Your task to perform on an android device: toggle wifi Image 0: 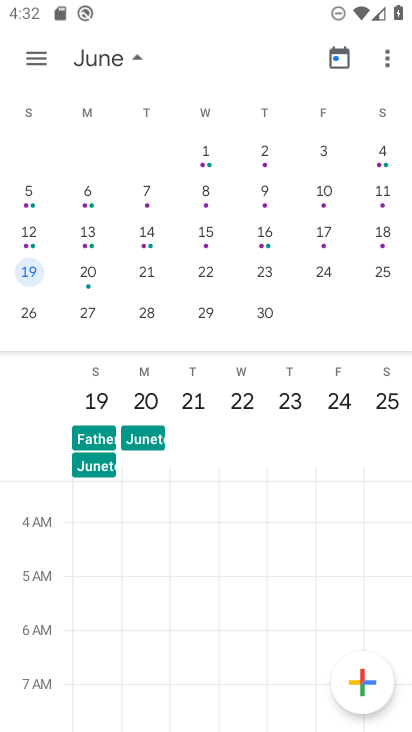
Step 0: press home button
Your task to perform on an android device: toggle wifi Image 1: 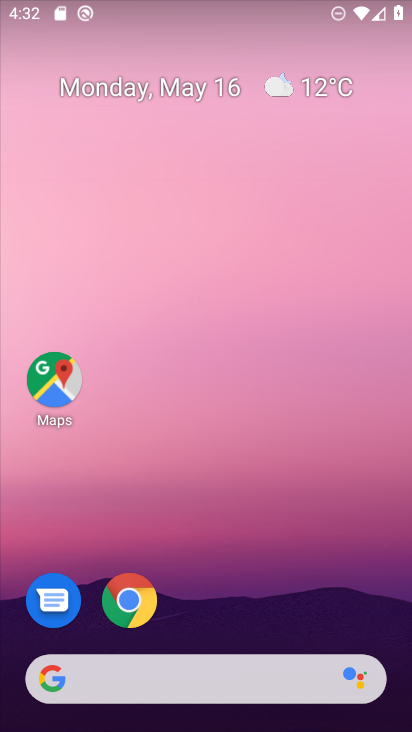
Step 1: drag from (268, 577) to (296, 9)
Your task to perform on an android device: toggle wifi Image 2: 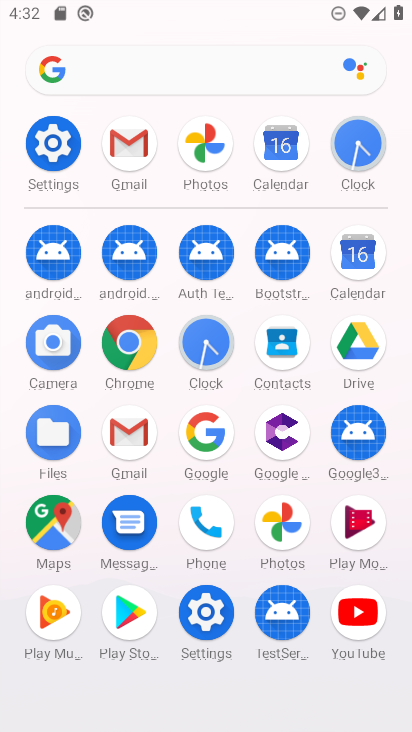
Step 2: click (54, 132)
Your task to perform on an android device: toggle wifi Image 3: 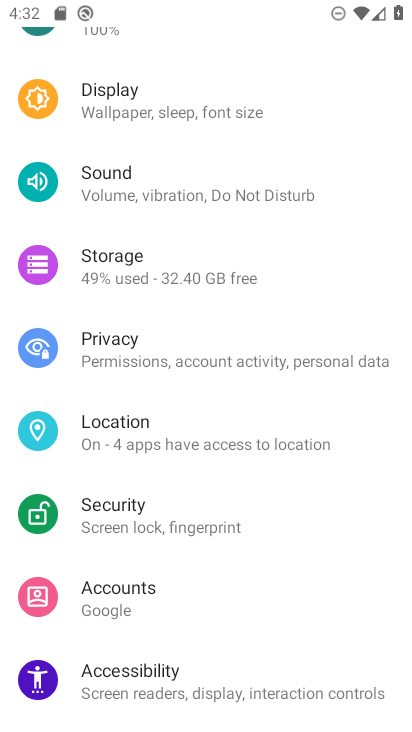
Step 3: drag from (216, 115) to (230, 619)
Your task to perform on an android device: toggle wifi Image 4: 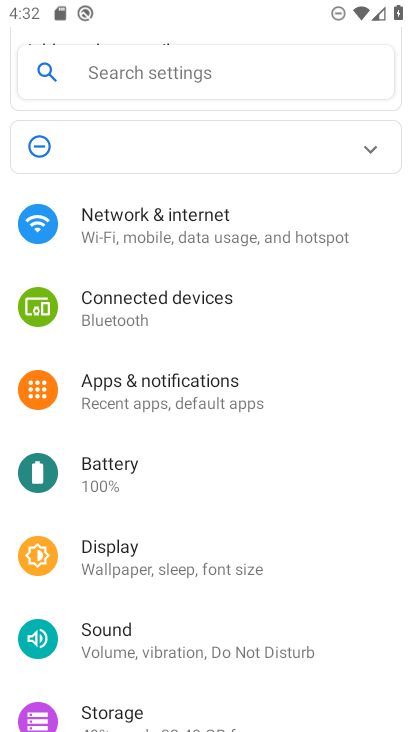
Step 4: click (222, 223)
Your task to perform on an android device: toggle wifi Image 5: 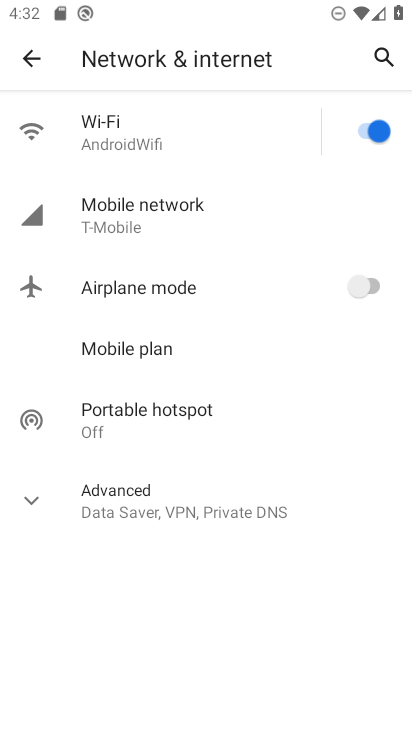
Step 5: click (373, 124)
Your task to perform on an android device: toggle wifi Image 6: 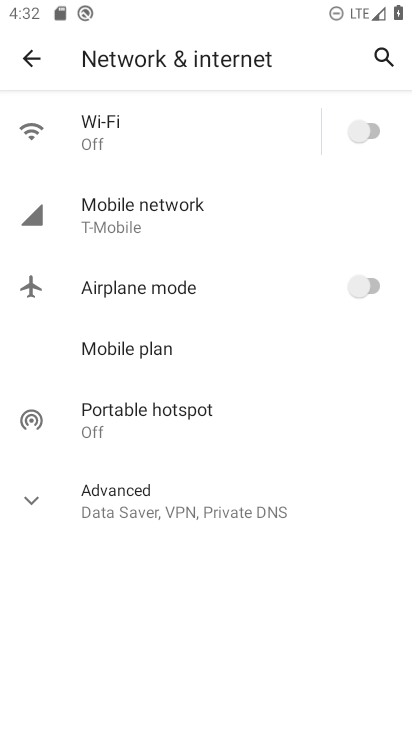
Step 6: click (373, 126)
Your task to perform on an android device: toggle wifi Image 7: 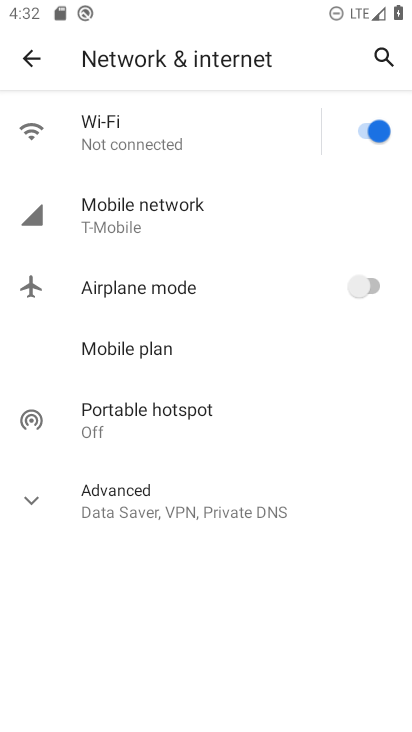
Step 7: task complete